Your task to perform on an android device: Open Maps and search for coffee Image 0: 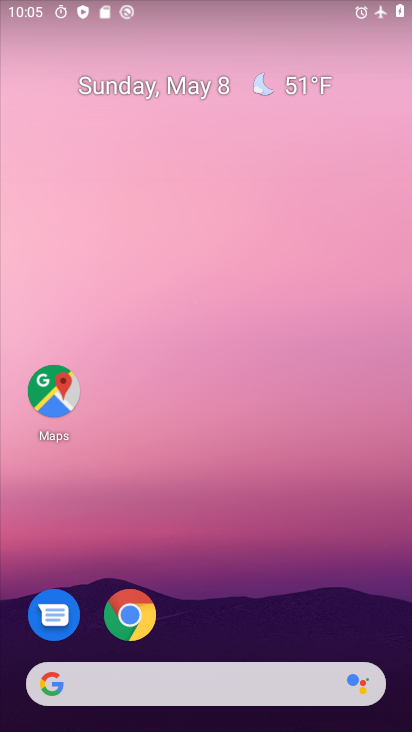
Step 0: click (34, 386)
Your task to perform on an android device: Open Maps and search for coffee Image 1: 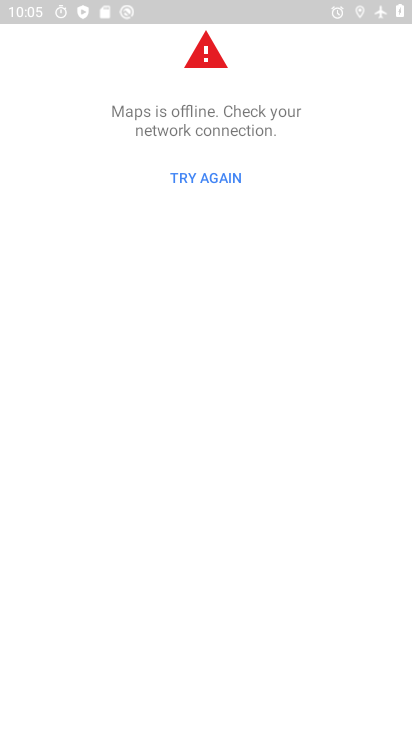
Step 1: task complete